Your task to perform on an android device: turn off picture-in-picture Image 0: 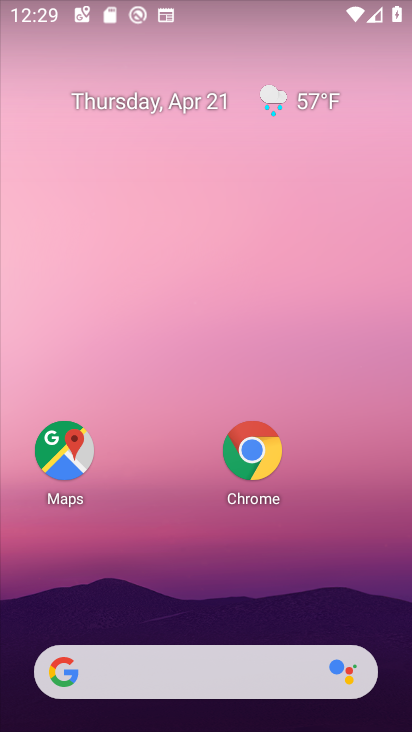
Step 0: click (252, 442)
Your task to perform on an android device: turn off picture-in-picture Image 1: 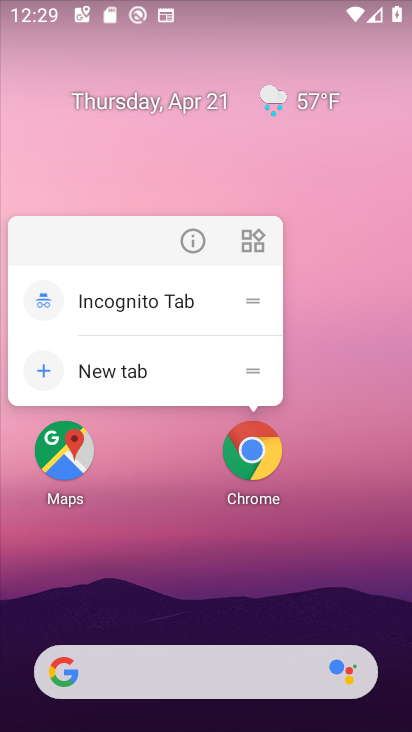
Step 1: click (202, 239)
Your task to perform on an android device: turn off picture-in-picture Image 2: 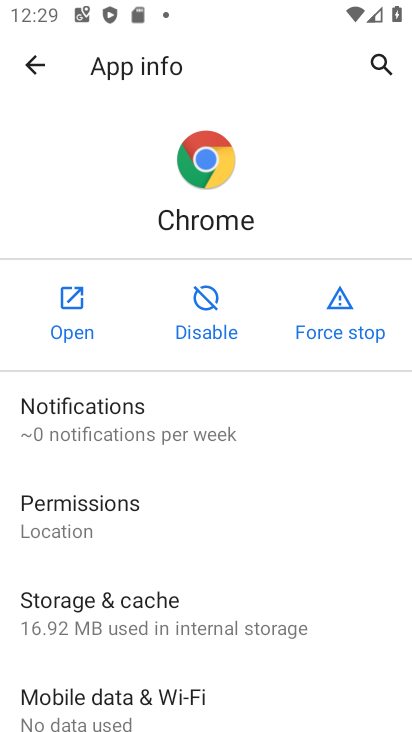
Step 2: drag from (83, 704) to (179, 274)
Your task to perform on an android device: turn off picture-in-picture Image 3: 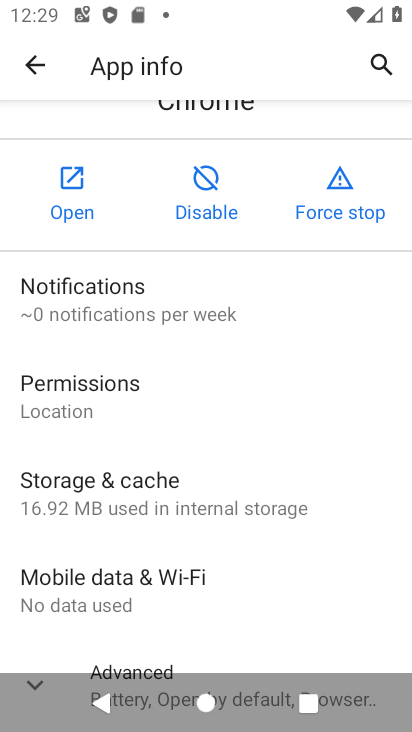
Step 3: drag from (161, 634) to (220, 111)
Your task to perform on an android device: turn off picture-in-picture Image 4: 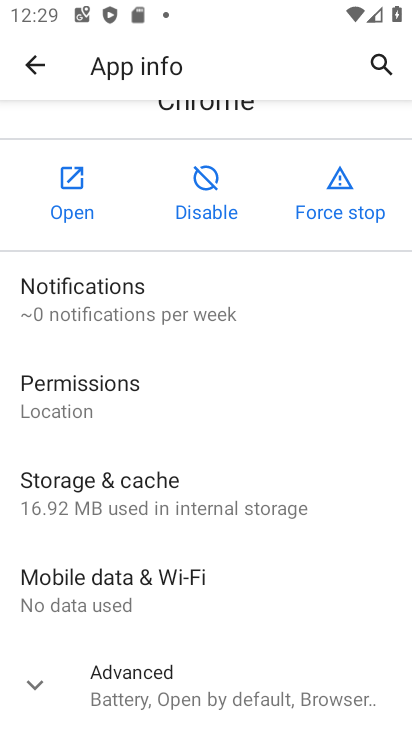
Step 4: click (105, 692)
Your task to perform on an android device: turn off picture-in-picture Image 5: 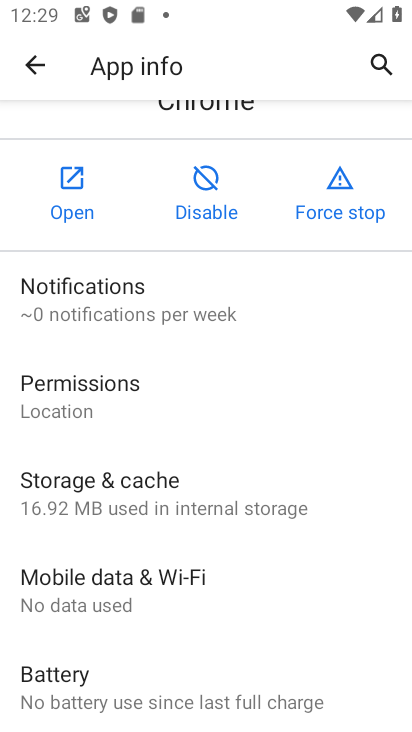
Step 5: drag from (105, 692) to (148, 199)
Your task to perform on an android device: turn off picture-in-picture Image 6: 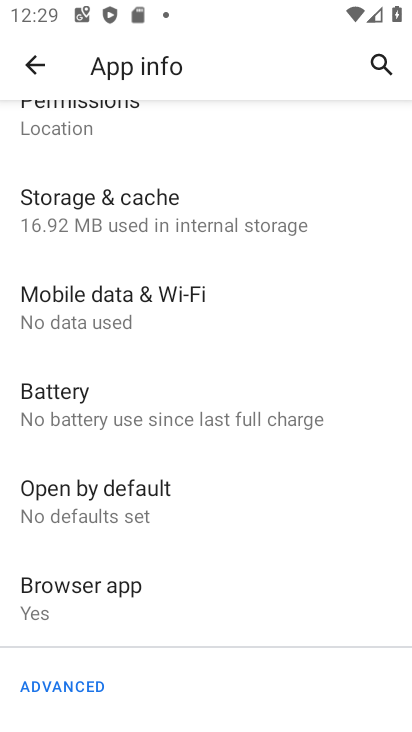
Step 6: drag from (160, 658) to (206, 110)
Your task to perform on an android device: turn off picture-in-picture Image 7: 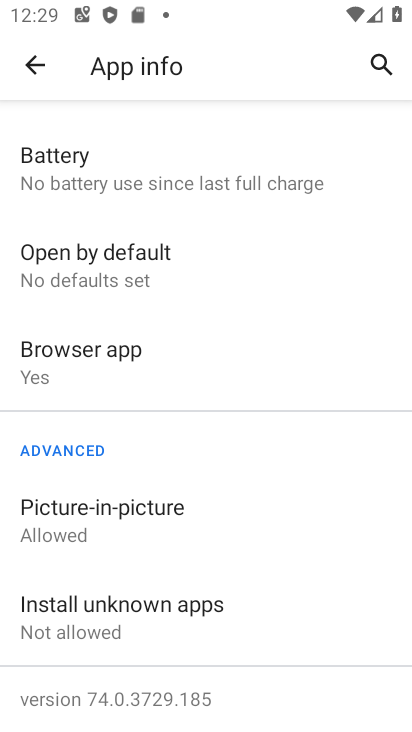
Step 7: click (112, 499)
Your task to perform on an android device: turn off picture-in-picture Image 8: 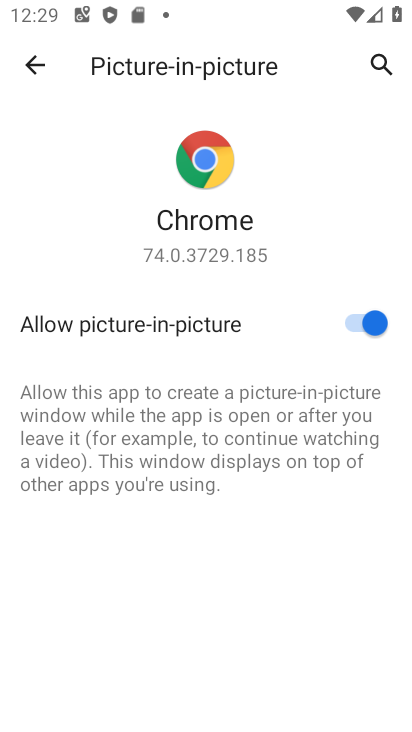
Step 8: click (359, 318)
Your task to perform on an android device: turn off picture-in-picture Image 9: 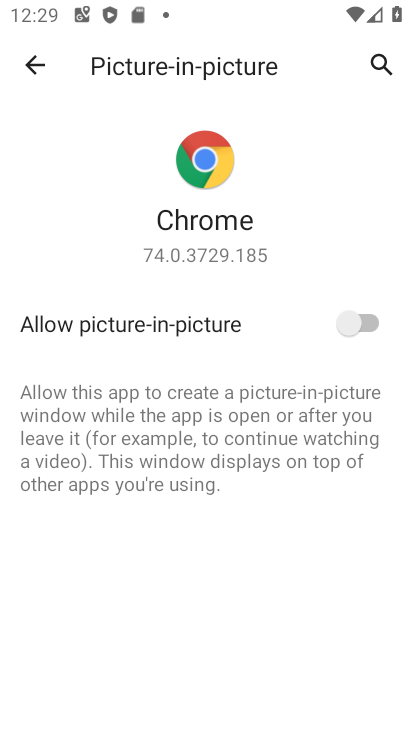
Step 9: task complete